Your task to perform on an android device: Do I have any events this weekend? Image 0: 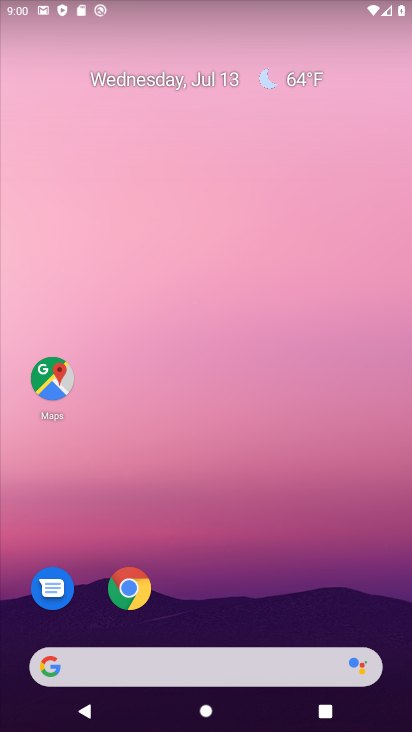
Step 0: drag from (203, 526) to (164, 104)
Your task to perform on an android device: Do I have any events this weekend? Image 1: 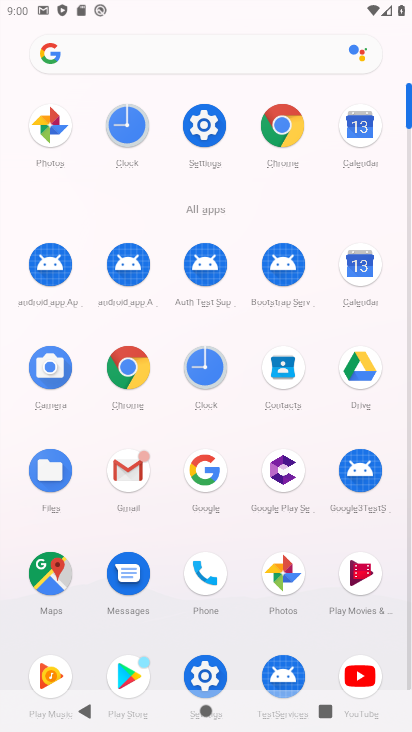
Step 1: click (366, 262)
Your task to perform on an android device: Do I have any events this weekend? Image 2: 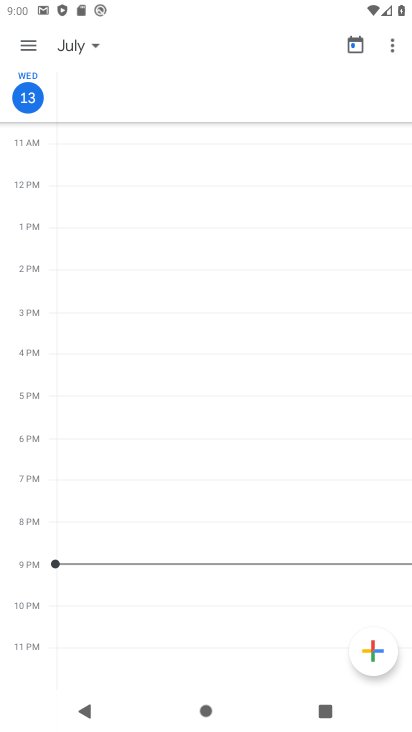
Step 2: click (24, 40)
Your task to perform on an android device: Do I have any events this weekend? Image 3: 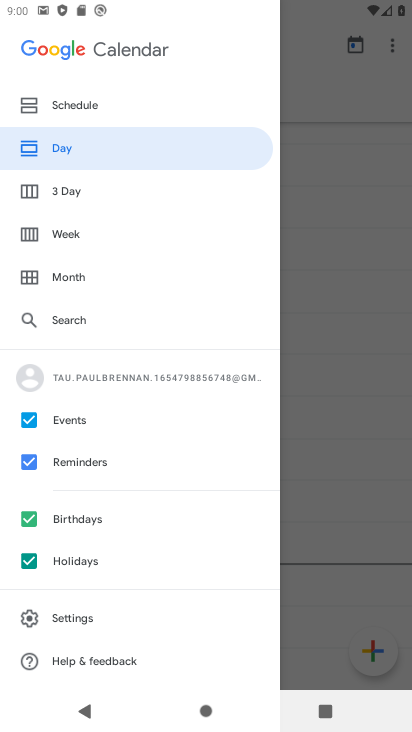
Step 3: click (69, 243)
Your task to perform on an android device: Do I have any events this weekend? Image 4: 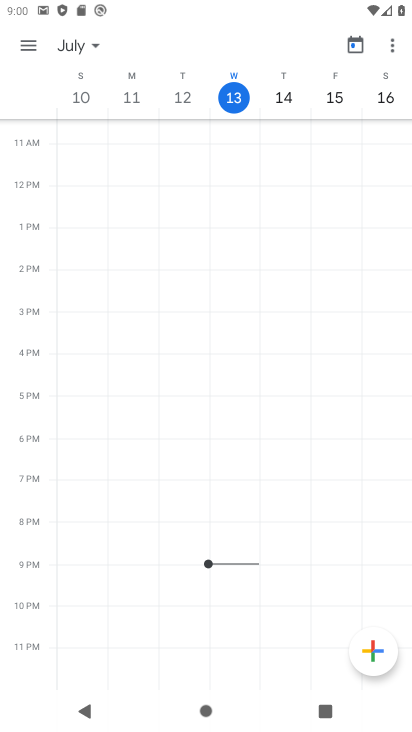
Step 4: task complete